Your task to perform on an android device: turn on javascript in the chrome app Image 0: 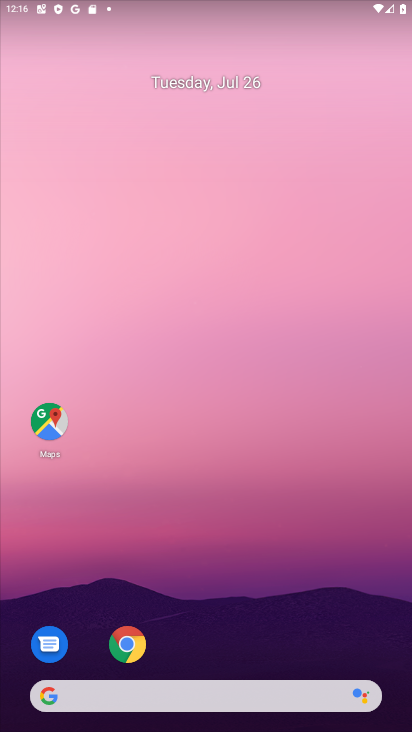
Step 0: click (133, 649)
Your task to perform on an android device: turn on javascript in the chrome app Image 1: 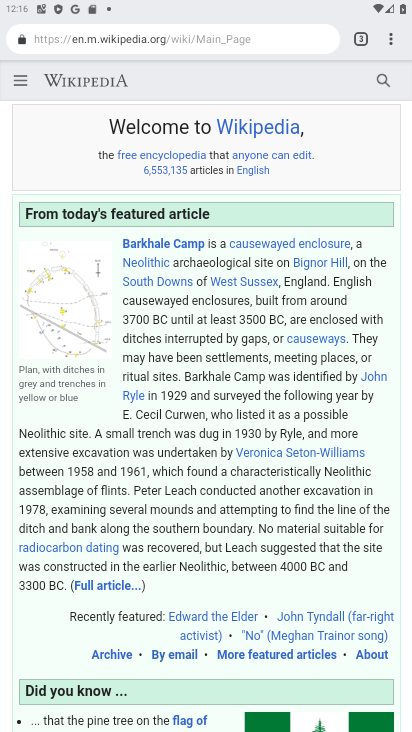
Step 1: drag from (393, 34) to (253, 478)
Your task to perform on an android device: turn on javascript in the chrome app Image 2: 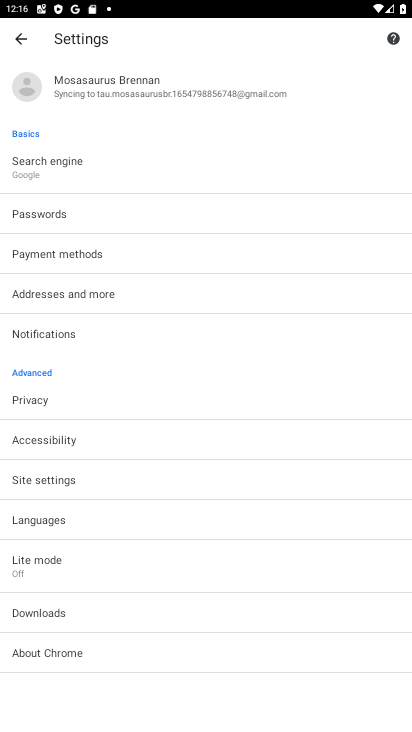
Step 2: click (44, 484)
Your task to perform on an android device: turn on javascript in the chrome app Image 3: 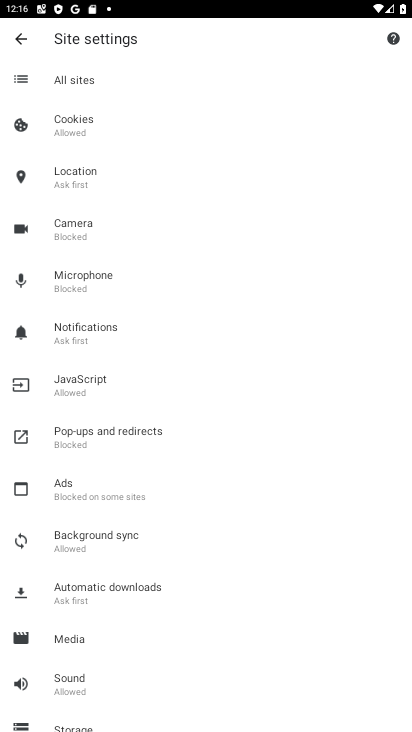
Step 3: click (75, 382)
Your task to perform on an android device: turn on javascript in the chrome app Image 4: 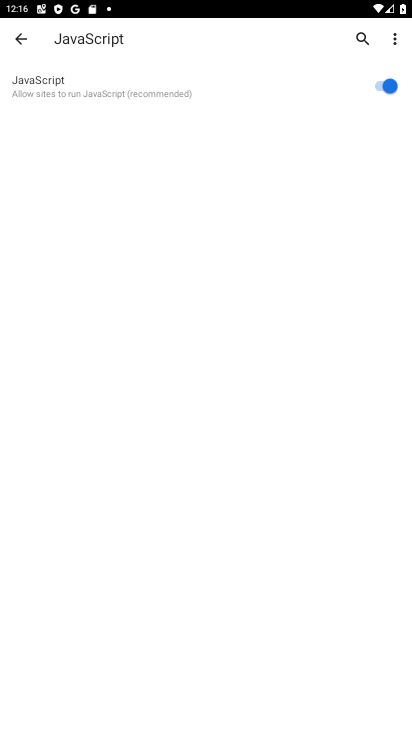
Step 4: task complete